Your task to perform on an android device: turn off wifi Image 0: 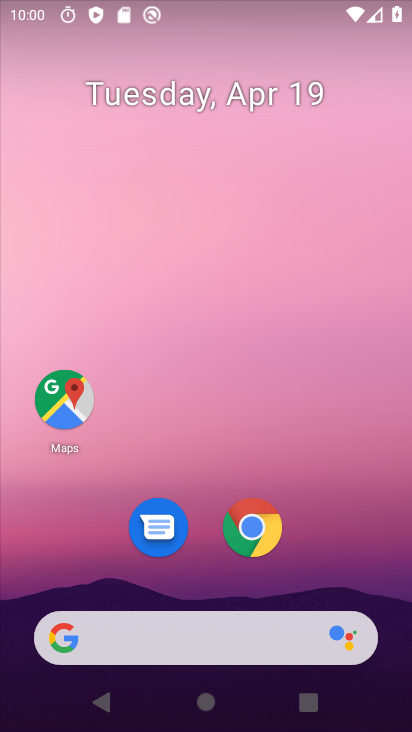
Step 0: drag from (260, 675) to (261, 76)
Your task to perform on an android device: turn off wifi Image 1: 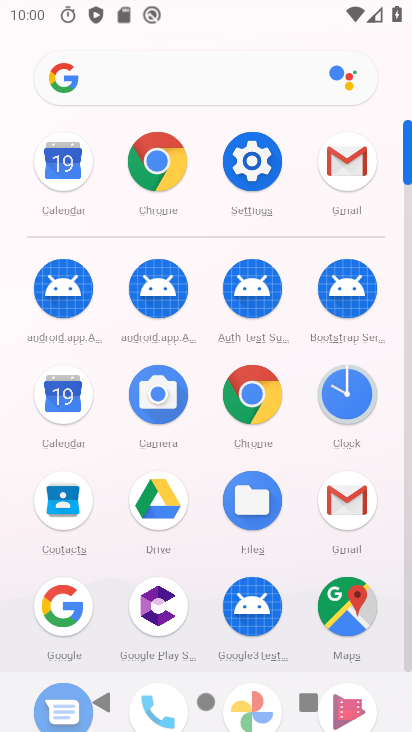
Step 1: click (254, 150)
Your task to perform on an android device: turn off wifi Image 2: 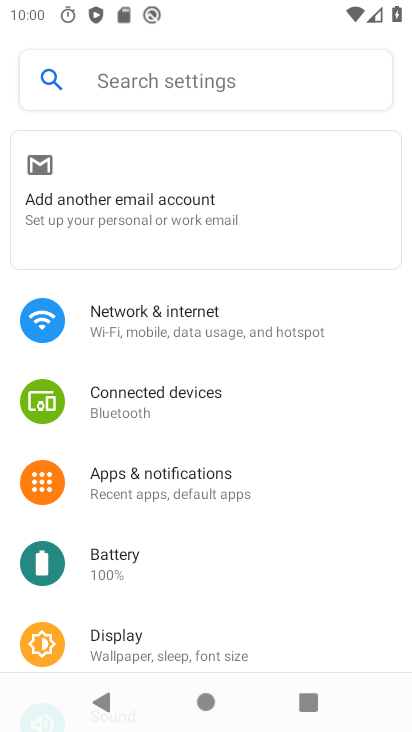
Step 2: click (152, 314)
Your task to perform on an android device: turn off wifi Image 3: 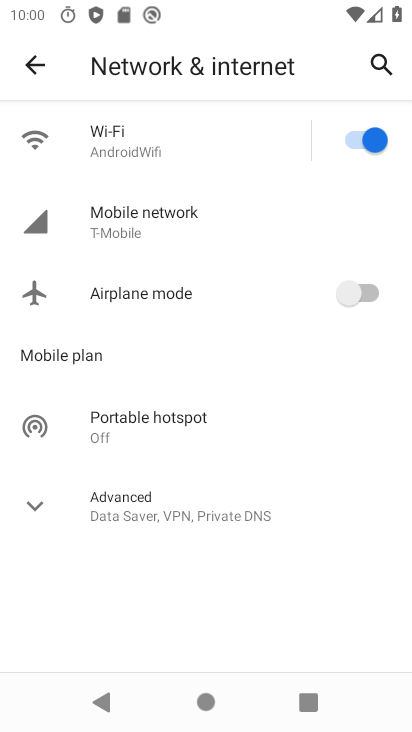
Step 3: click (139, 163)
Your task to perform on an android device: turn off wifi Image 4: 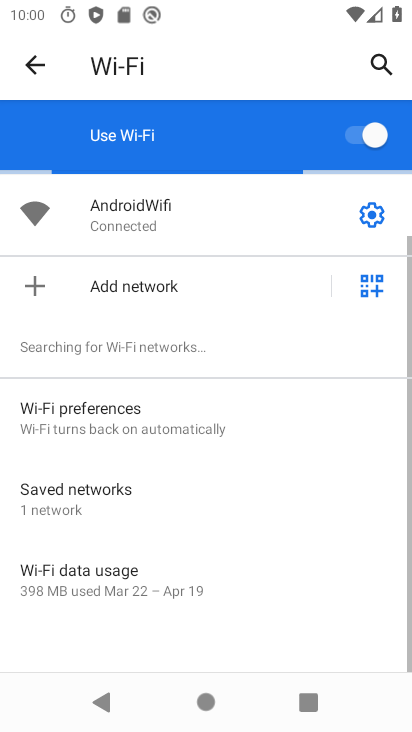
Step 4: click (356, 142)
Your task to perform on an android device: turn off wifi Image 5: 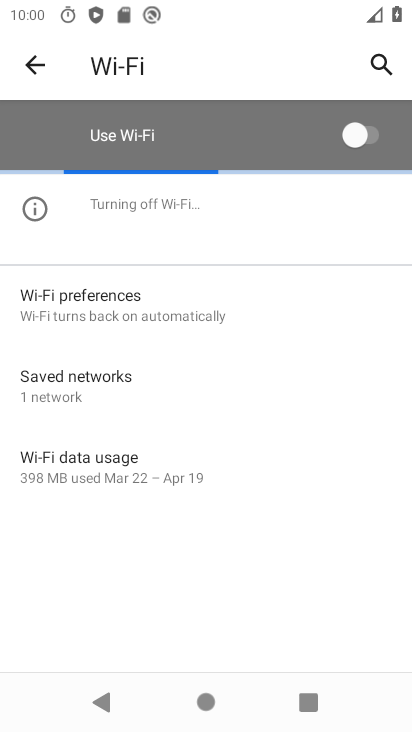
Step 5: task complete